Your task to perform on an android device: turn off priority inbox in the gmail app Image 0: 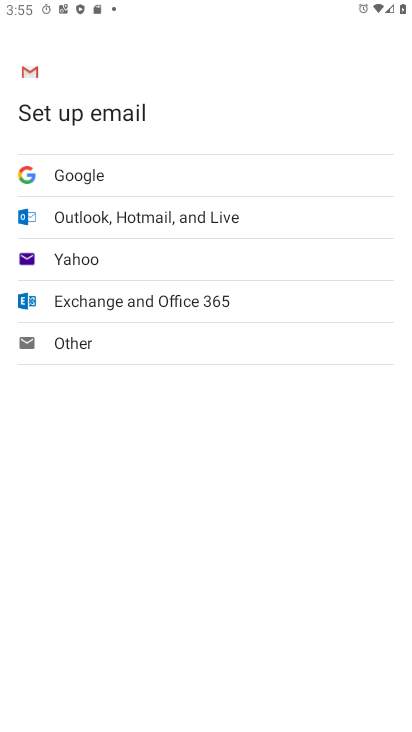
Step 0: press home button
Your task to perform on an android device: turn off priority inbox in the gmail app Image 1: 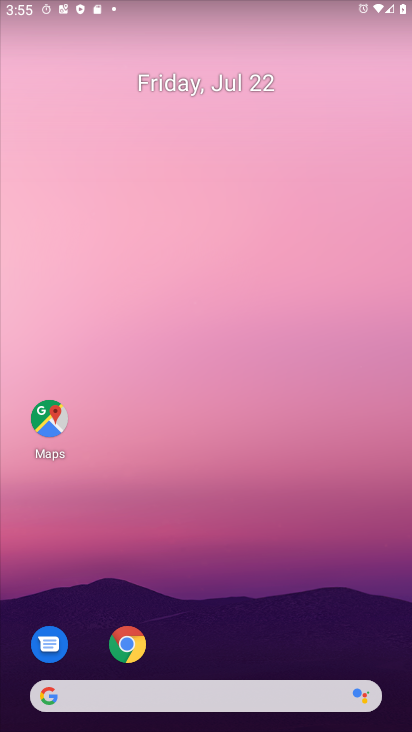
Step 1: drag from (301, 617) to (294, 61)
Your task to perform on an android device: turn off priority inbox in the gmail app Image 2: 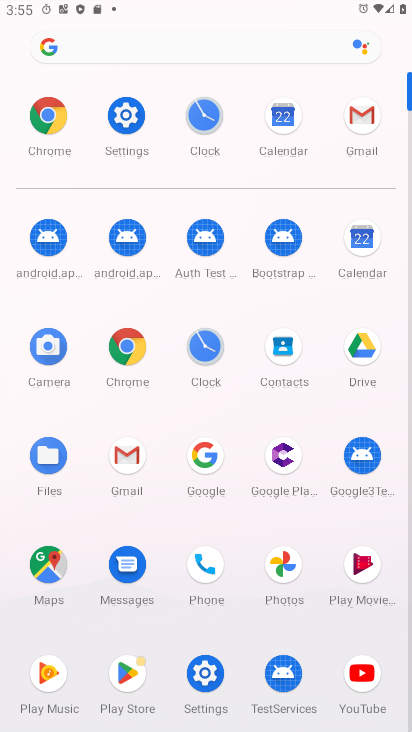
Step 2: click (358, 127)
Your task to perform on an android device: turn off priority inbox in the gmail app Image 3: 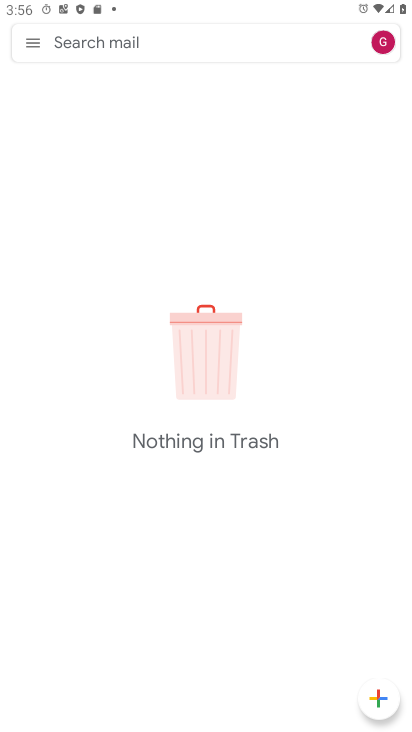
Step 3: click (34, 50)
Your task to perform on an android device: turn off priority inbox in the gmail app Image 4: 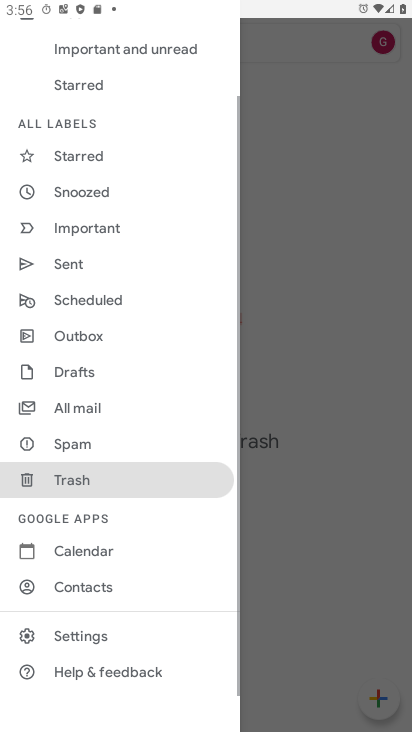
Step 4: click (76, 630)
Your task to perform on an android device: turn off priority inbox in the gmail app Image 5: 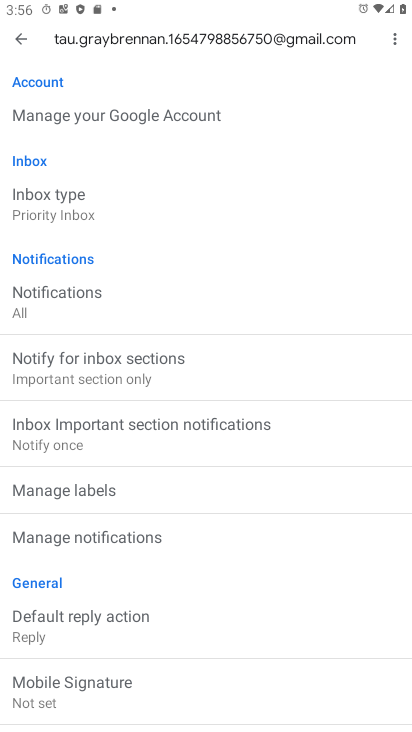
Step 5: click (51, 207)
Your task to perform on an android device: turn off priority inbox in the gmail app Image 6: 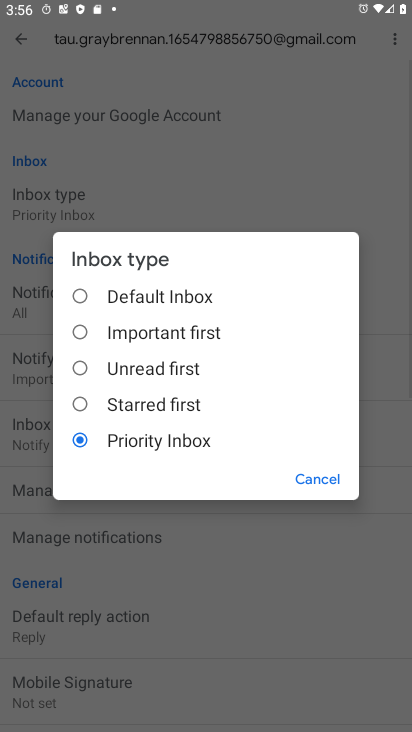
Step 6: click (76, 295)
Your task to perform on an android device: turn off priority inbox in the gmail app Image 7: 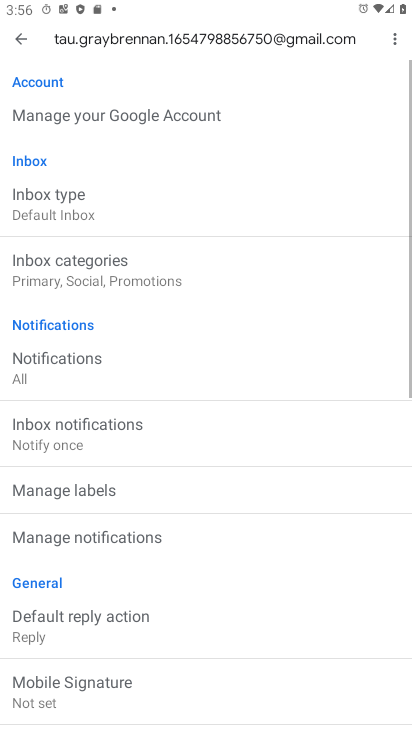
Step 7: task complete